Your task to perform on an android device: Go to Android settings Image 0: 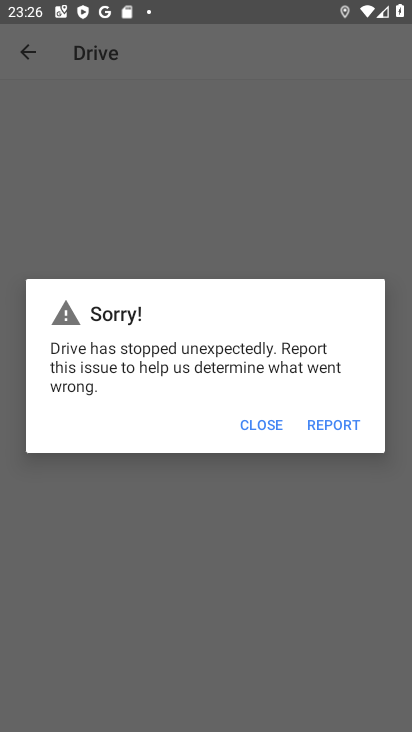
Step 0: press home button
Your task to perform on an android device: Go to Android settings Image 1: 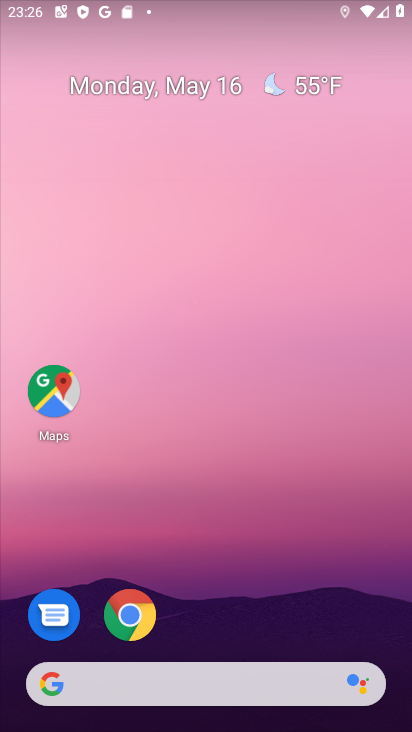
Step 1: drag from (210, 657) to (201, 50)
Your task to perform on an android device: Go to Android settings Image 2: 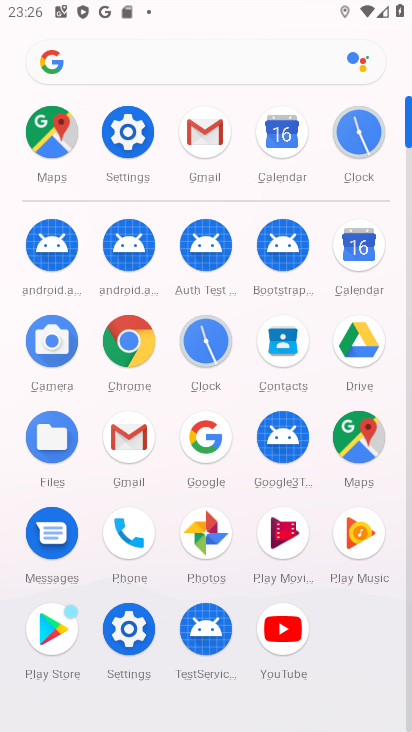
Step 2: click (119, 145)
Your task to perform on an android device: Go to Android settings Image 3: 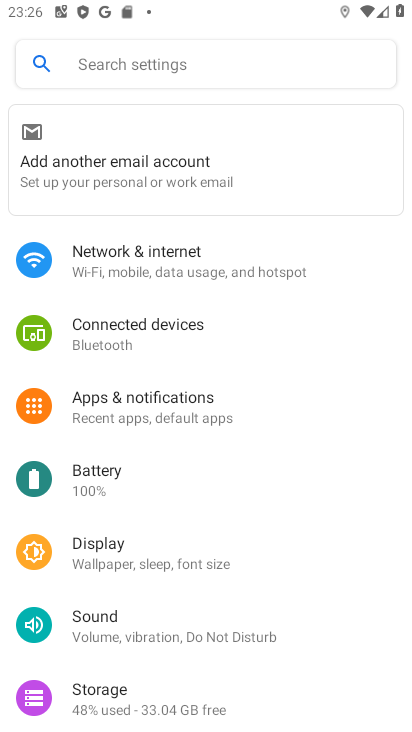
Step 3: task complete